Your task to perform on an android device: Open internet settings Image 0: 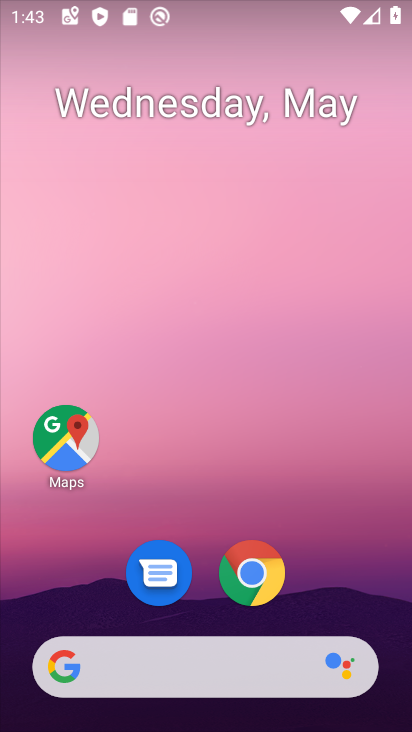
Step 0: drag from (344, 606) to (278, 34)
Your task to perform on an android device: Open internet settings Image 1: 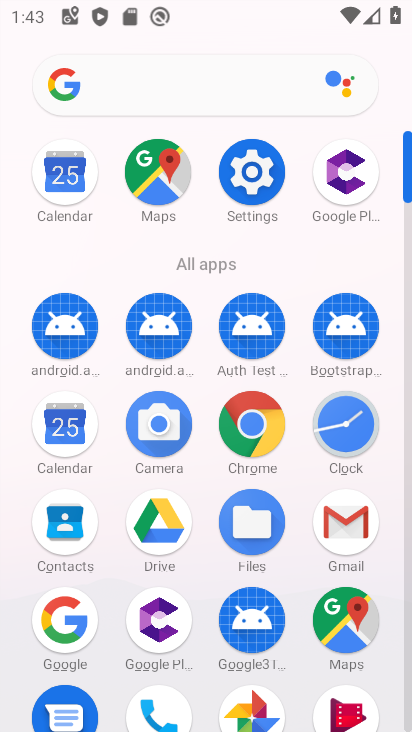
Step 1: click (256, 163)
Your task to perform on an android device: Open internet settings Image 2: 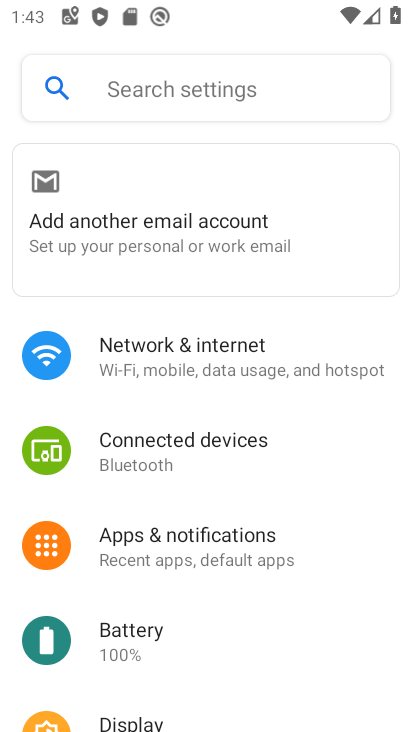
Step 2: click (196, 371)
Your task to perform on an android device: Open internet settings Image 3: 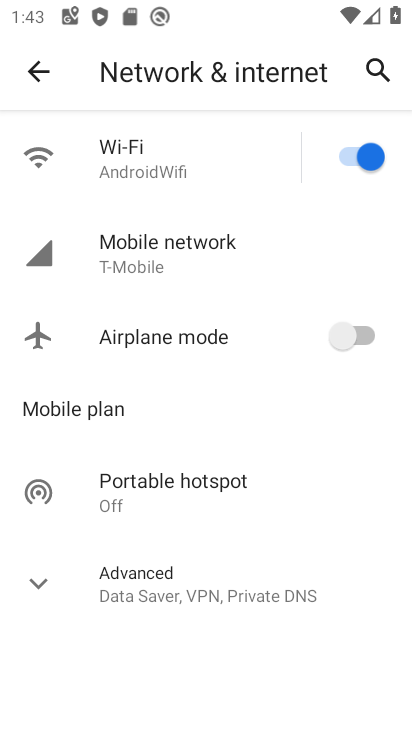
Step 3: click (107, 235)
Your task to perform on an android device: Open internet settings Image 4: 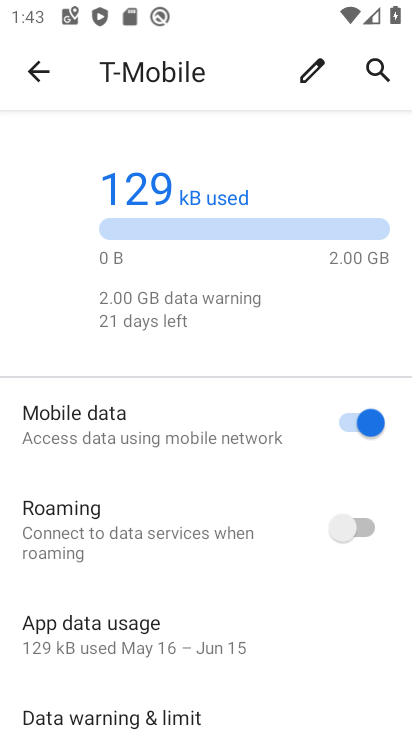
Step 4: task complete